Your task to perform on an android device: When is my next appointment? Image 0: 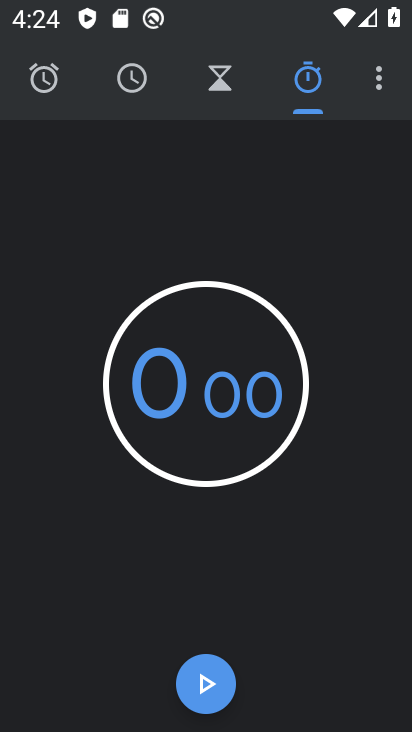
Step 0: press home button
Your task to perform on an android device: When is my next appointment? Image 1: 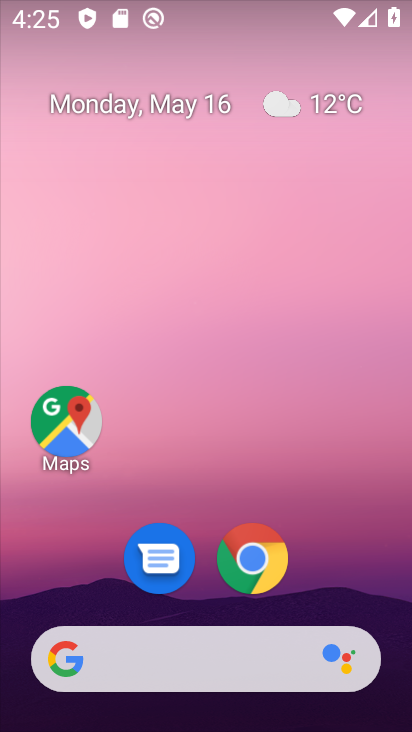
Step 1: drag from (353, 545) to (298, 183)
Your task to perform on an android device: When is my next appointment? Image 2: 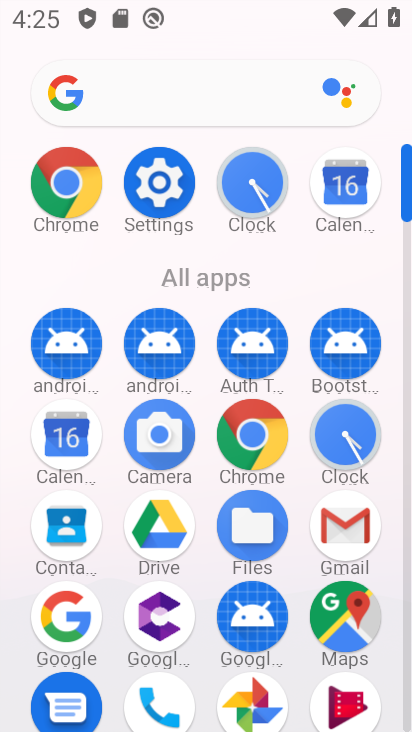
Step 2: click (71, 442)
Your task to perform on an android device: When is my next appointment? Image 3: 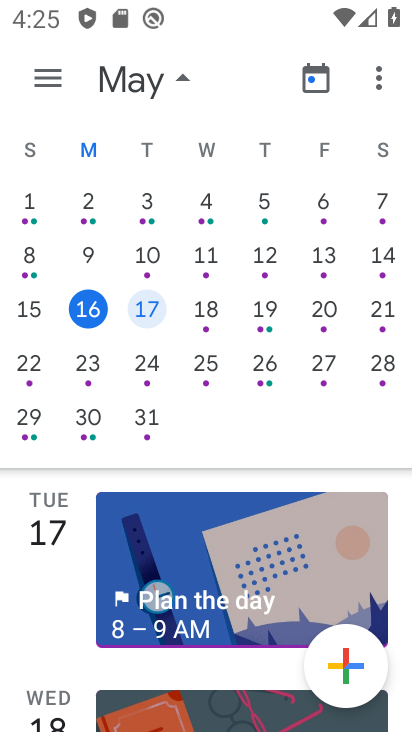
Step 3: click (82, 323)
Your task to perform on an android device: When is my next appointment? Image 4: 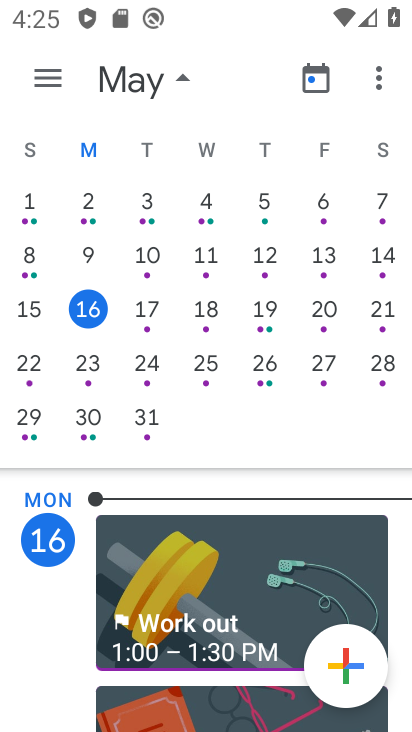
Step 4: task complete